Your task to perform on an android device: open app "Spotify" (install if not already installed) Image 0: 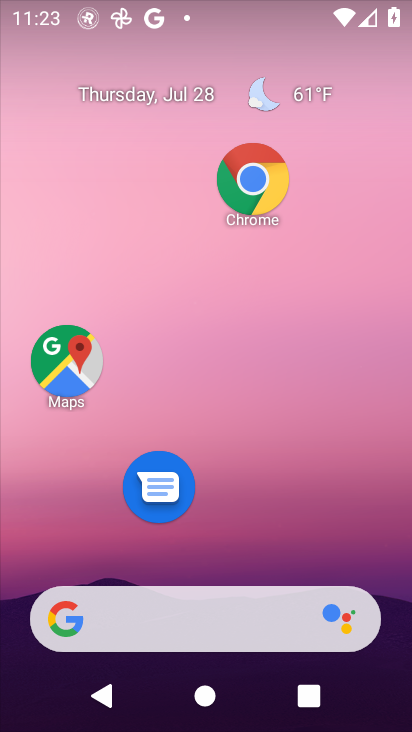
Step 0: click (225, 437)
Your task to perform on an android device: open app "Spotify" (install if not already installed) Image 1: 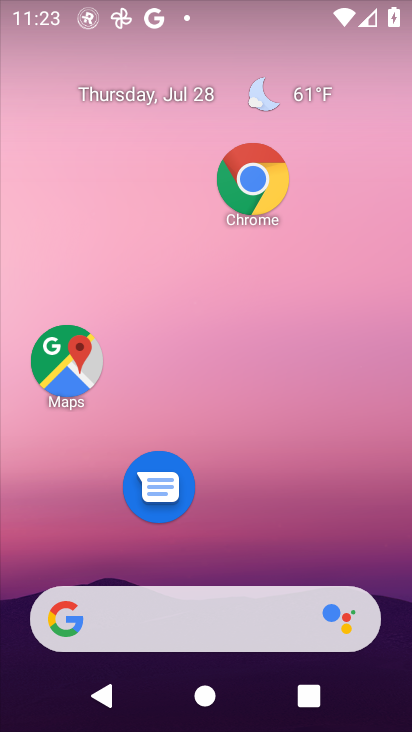
Step 1: drag from (238, 672) to (238, 173)
Your task to perform on an android device: open app "Spotify" (install if not already installed) Image 2: 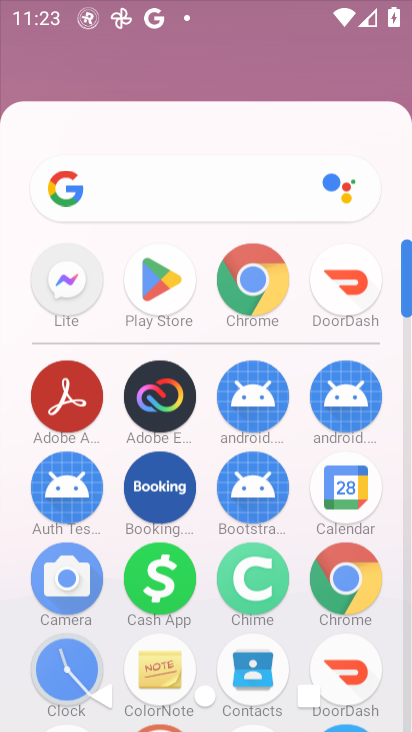
Step 2: drag from (314, 491) to (310, 291)
Your task to perform on an android device: open app "Spotify" (install if not already installed) Image 3: 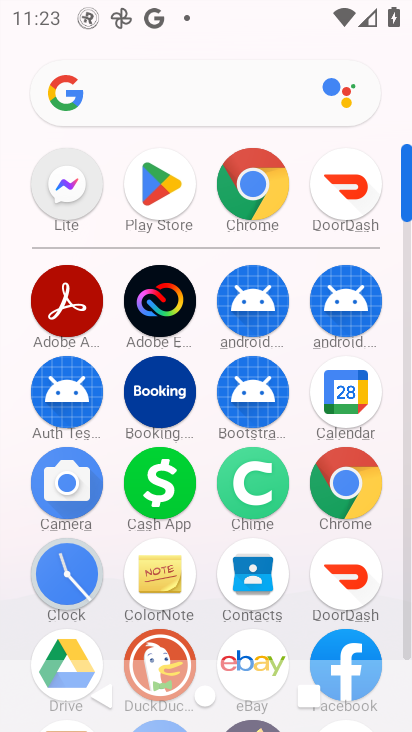
Step 3: drag from (246, 532) to (202, 166)
Your task to perform on an android device: open app "Spotify" (install if not already installed) Image 4: 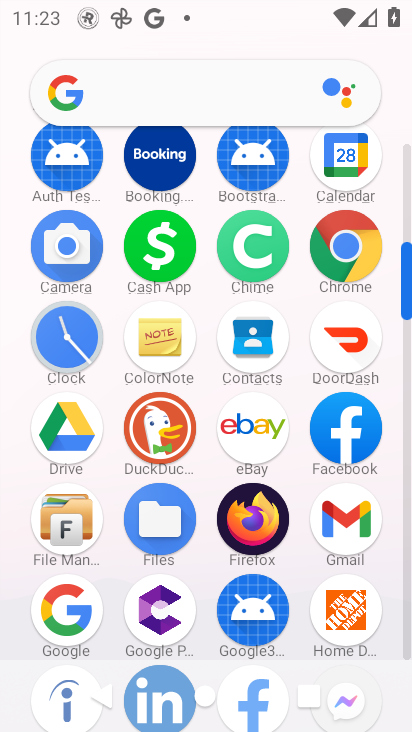
Step 4: click (287, 613)
Your task to perform on an android device: open app "Spotify" (install if not already installed) Image 5: 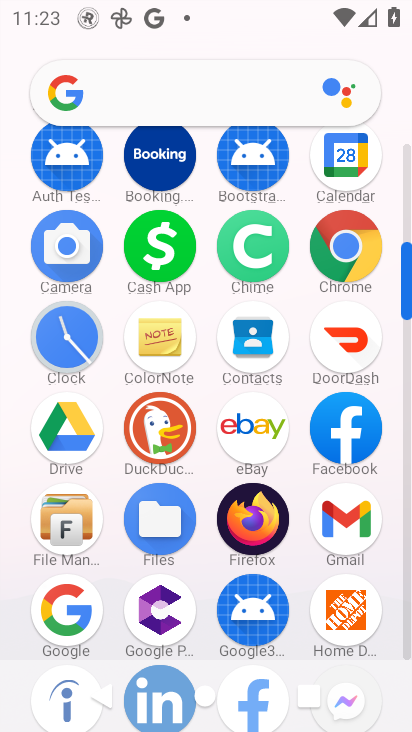
Step 5: drag from (266, 255) to (275, 575)
Your task to perform on an android device: open app "Spotify" (install if not already installed) Image 6: 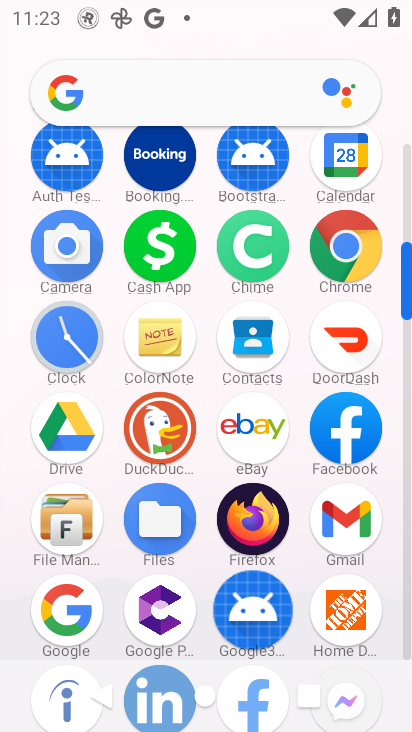
Step 6: drag from (310, 316) to (268, 610)
Your task to perform on an android device: open app "Spotify" (install if not already installed) Image 7: 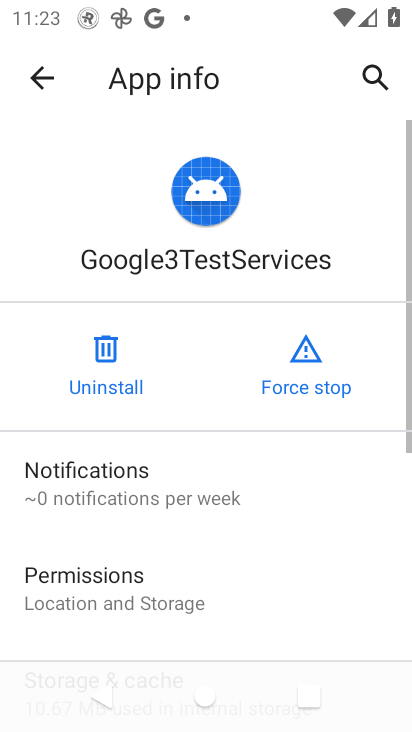
Step 7: drag from (233, 352) to (231, 585)
Your task to perform on an android device: open app "Spotify" (install if not already installed) Image 8: 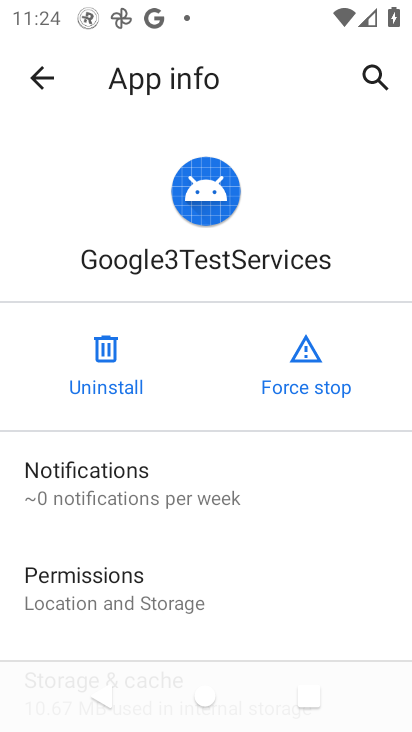
Step 8: click (36, 76)
Your task to perform on an android device: open app "Spotify" (install if not already installed) Image 9: 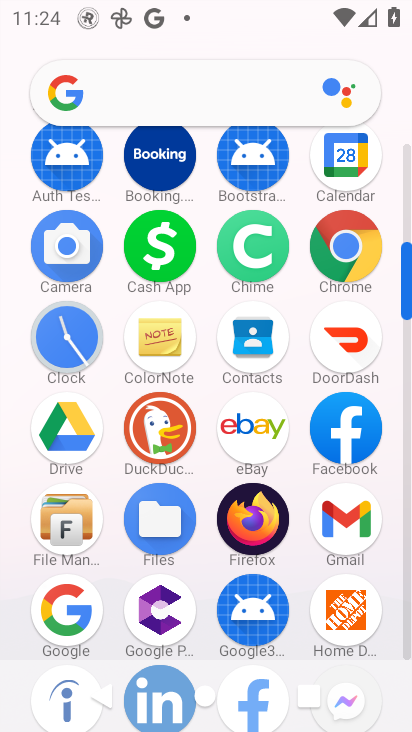
Step 9: drag from (291, 320) to (291, 544)
Your task to perform on an android device: open app "Spotify" (install if not already installed) Image 10: 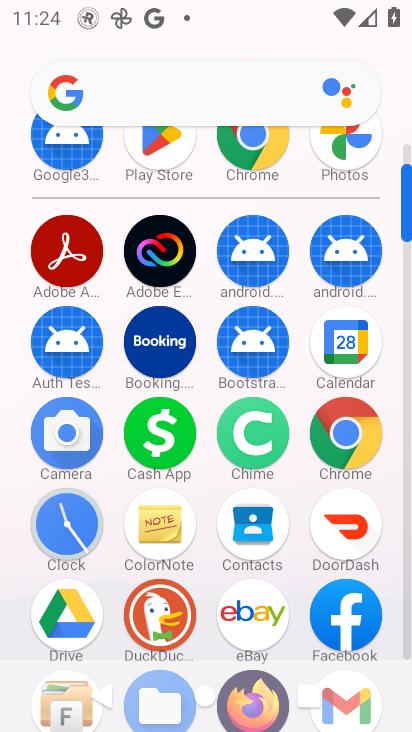
Step 10: drag from (267, 396) to (264, 557)
Your task to perform on an android device: open app "Spotify" (install if not already installed) Image 11: 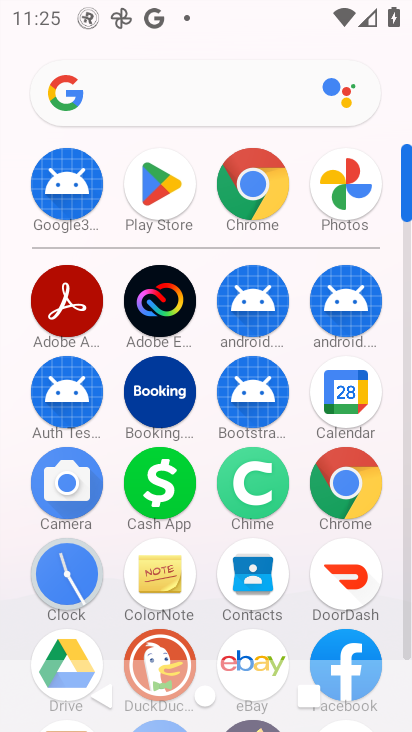
Step 11: drag from (334, 586) to (298, 249)
Your task to perform on an android device: open app "Spotify" (install if not already installed) Image 12: 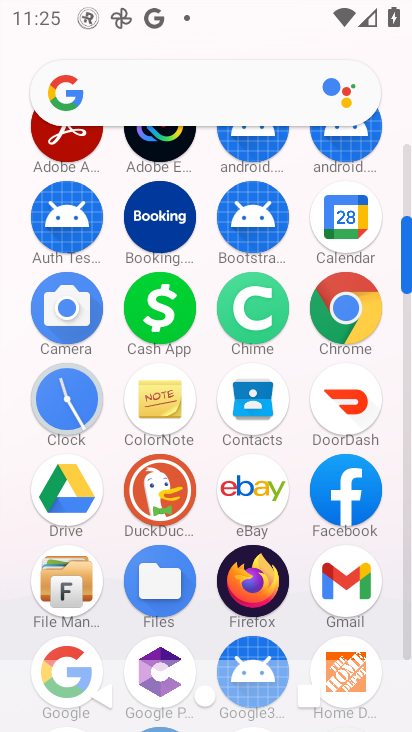
Step 12: drag from (280, 430) to (278, 347)
Your task to perform on an android device: open app "Spotify" (install if not already installed) Image 13: 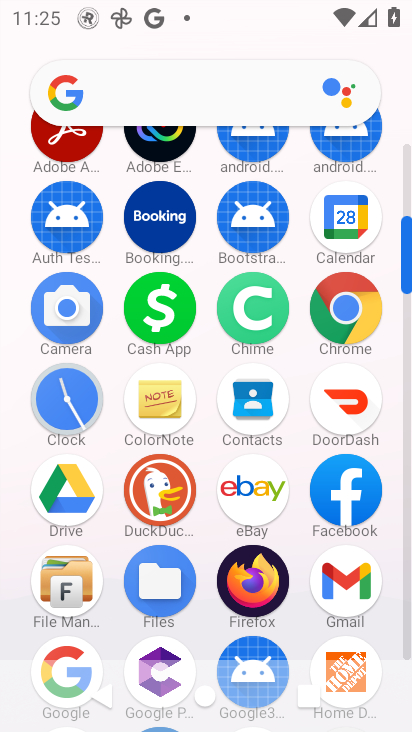
Step 13: click (263, 486)
Your task to perform on an android device: open app "Spotify" (install if not already installed) Image 14: 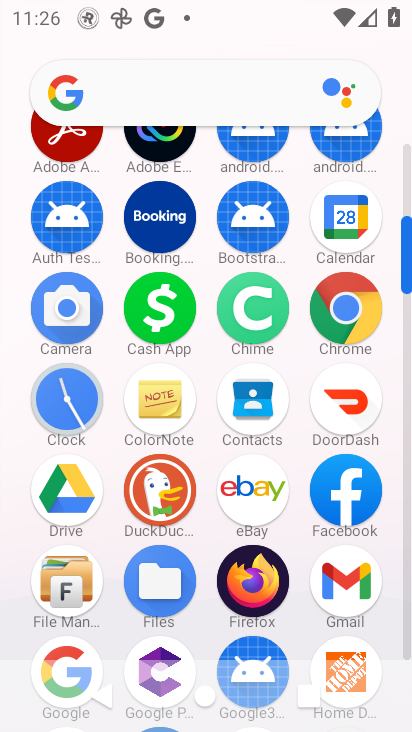
Step 14: drag from (293, 318) to (301, 546)
Your task to perform on an android device: open app "Spotify" (install if not already installed) Image 15: 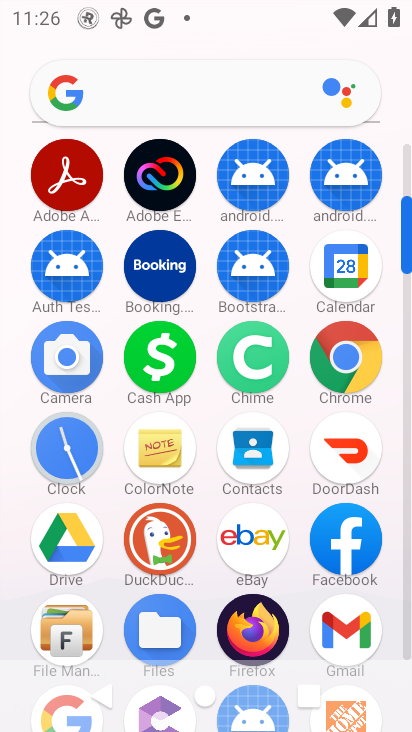
Step 15: drag from (268, 258) to (268, 519)
Your task to perform on an android device: open app "Spotify" (install if not already installed) Image 16: 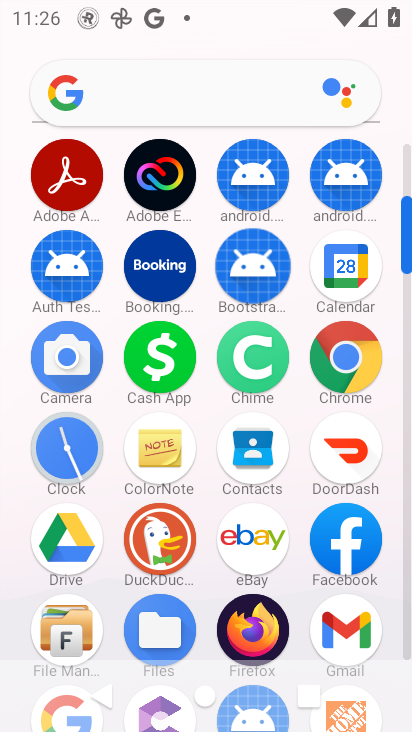
Step 16: drag from (282, 307) to (299, 544)
Your task to perform on an android device: open app "Spotify" (install if not already installed) Image 17: 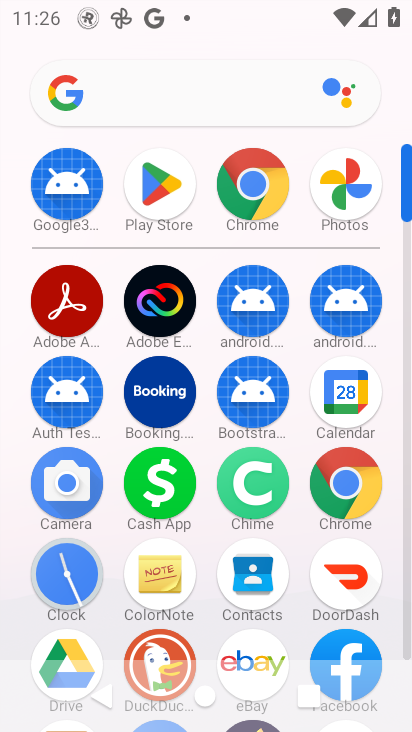
Step 17: click (172, 203)
Your task to perform on an android device: open app "Spotify" (install if not already installed) Image 18: 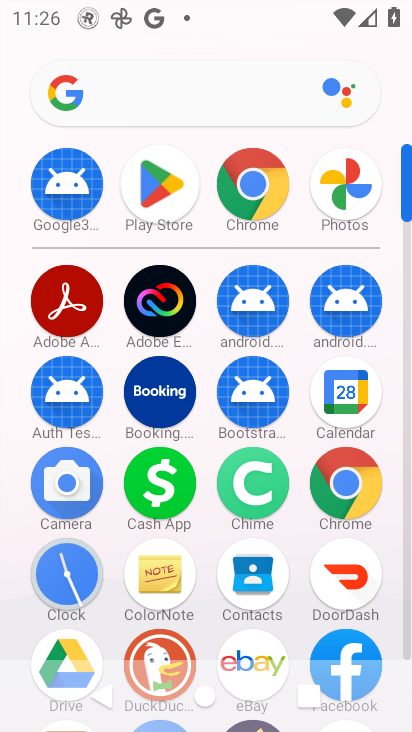
Step 18: click (169, 203)
Your task to perform on an android device: open app "Spotify" (install if not already installed) Image 19: 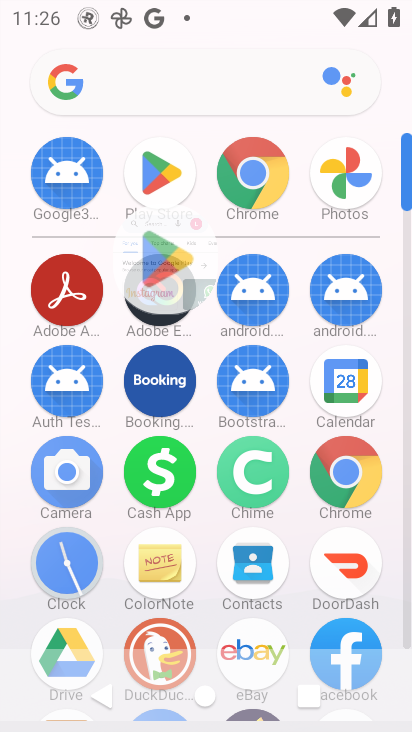
Step 19: click (175, 200)
Your task to perform on an android device: open app "Spotify" (install if not already installed) Image 20: 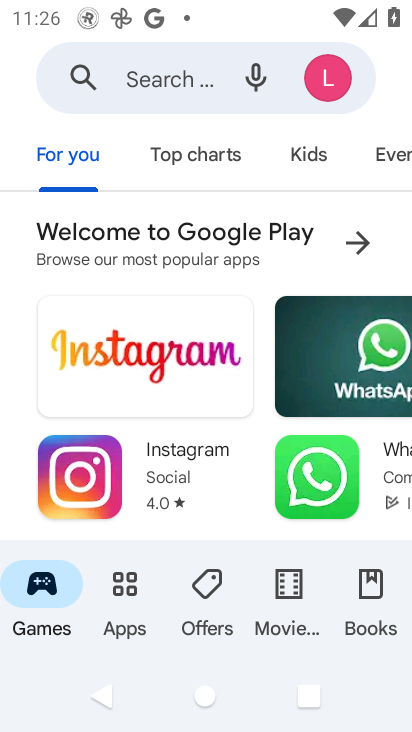
Step 20: click (133, 71)
Your task to perform on an android device: open app "Spotify" (install if not already installed) Image 21: 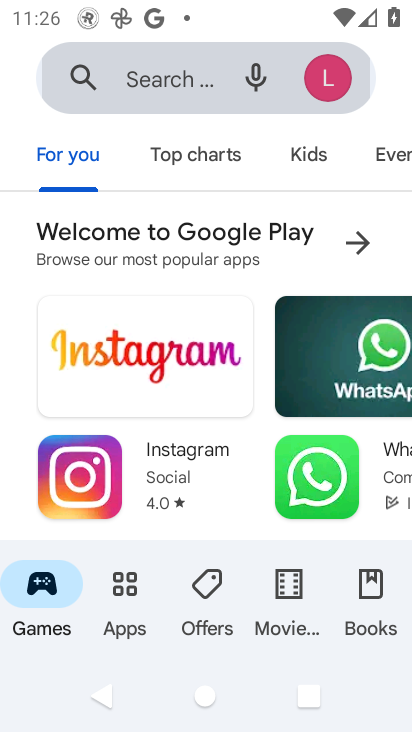
Step 21: click (133, 71)
Your task to perform on an android device: open app "Spotify" (install if not already installed) Image 22: 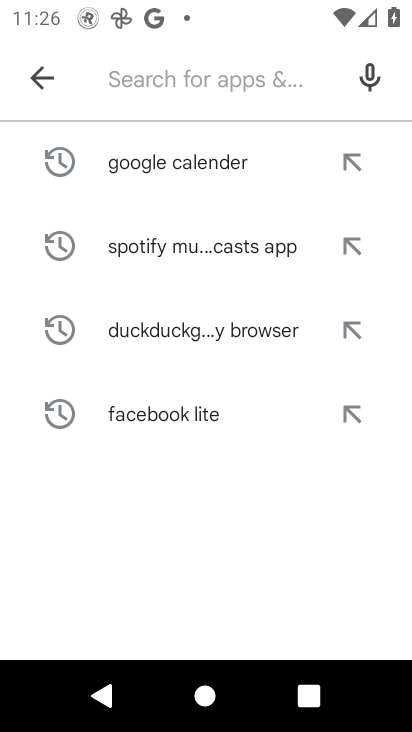
Step 22: click (139, 80)
Your task to perform on an android device: open app "Spotify" (install if not already installed) Image 23: 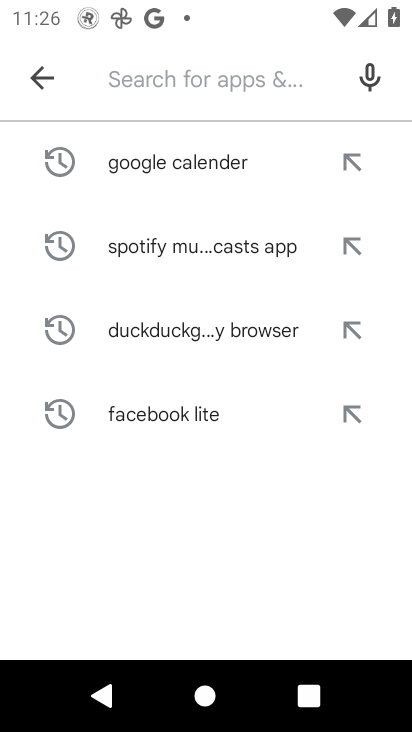
Step 23: type "spotfy"
Your task to perform on an android device: open app "Spotify" (install if not already installed) Image 24: 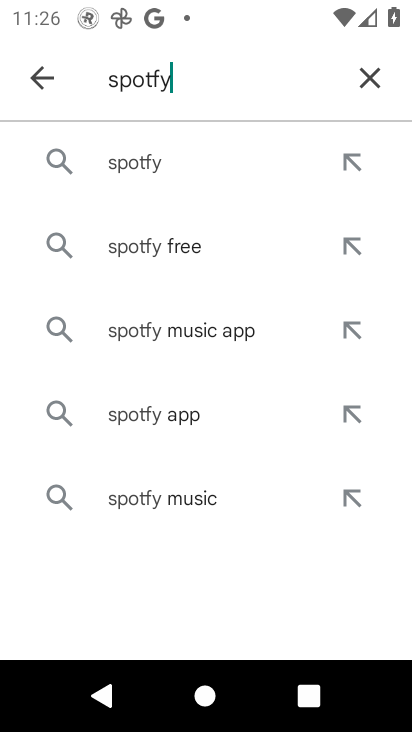
Step 24: click (128, 163)
Your task to perform on an android device: open app "Spotify" (install if not already installed) Image 25: 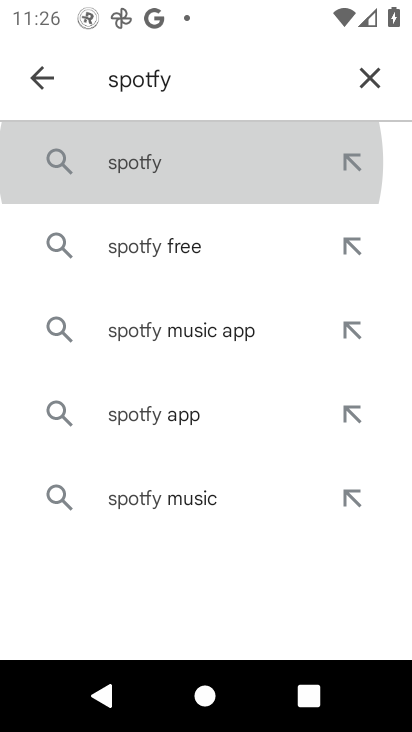
Step 25: click (128, 163)
Your task to perform on an android device: open app "Spotify" (install if not already installed) Image 26: 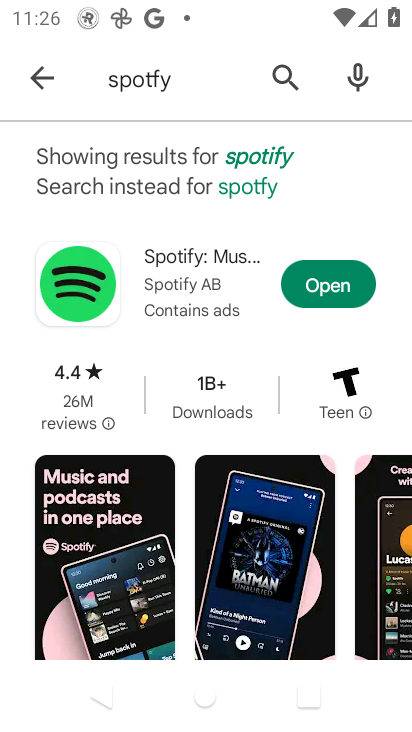
Step 26: click (336, 288)
Your task to perform on an android device: open app "Spotify" (install if not already installed) Image 27: 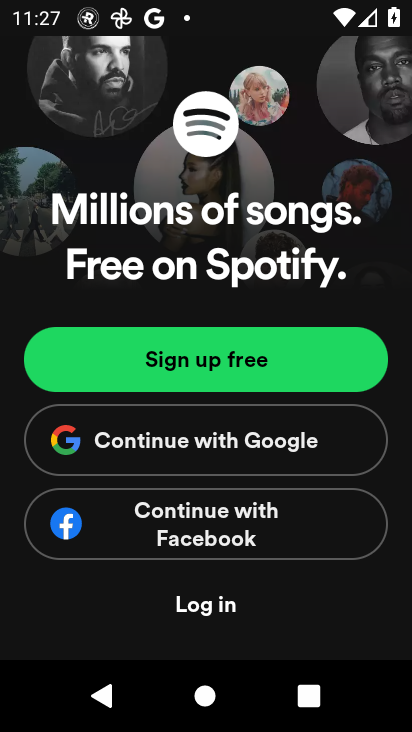
Step 27: task complete